Your task to perform on an android device: create a new album in the google photos Image 0: 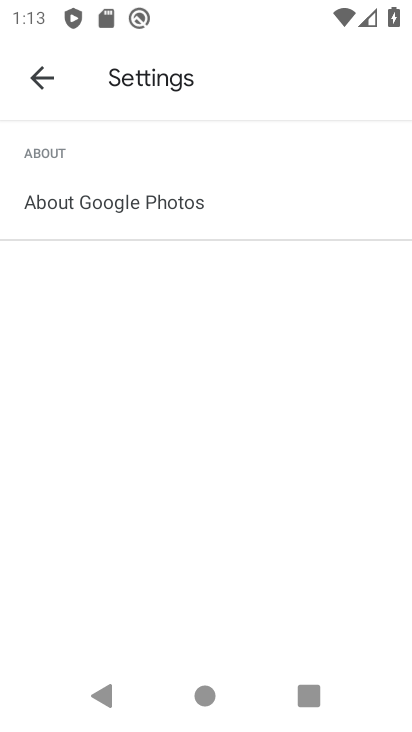
Step 0: press home button
Your task to perform on an android device: create a new album in the google photos Image 1: 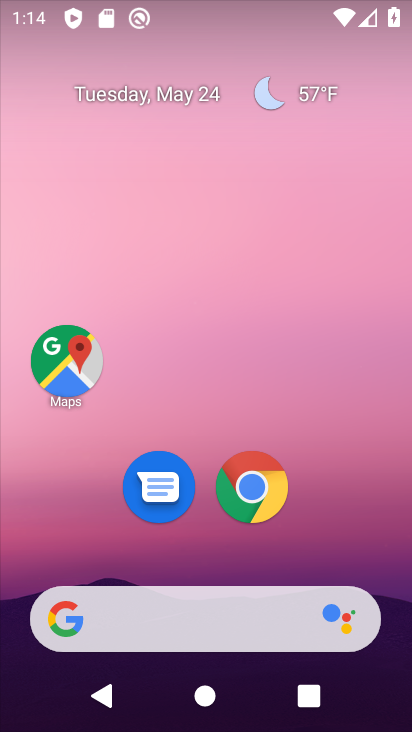
Step 1: drag from (215, 729) to (196, 92)
Your task to perform on an android device: create a new album in the google photos Image 2: 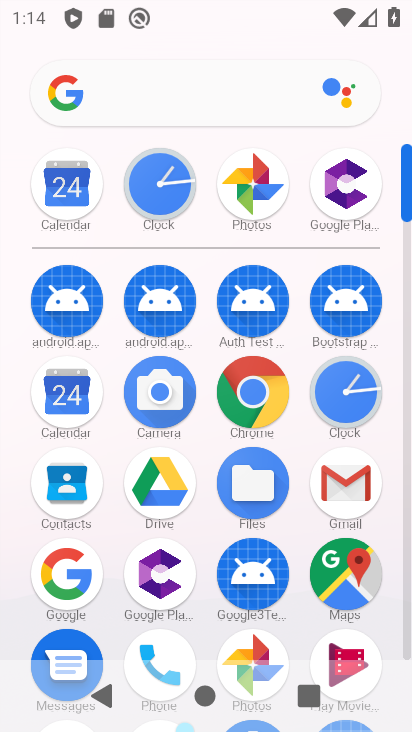
Step 2: click (256, 648)
Your task to perform on an android device: create a new album in the google photos Image 3: 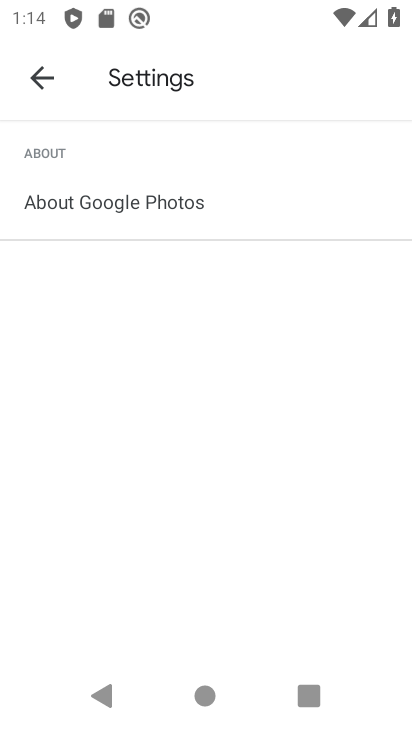
Step 3: click (48, 76)
Your task to perform on an android device: create a new album in the google photos Image 4: 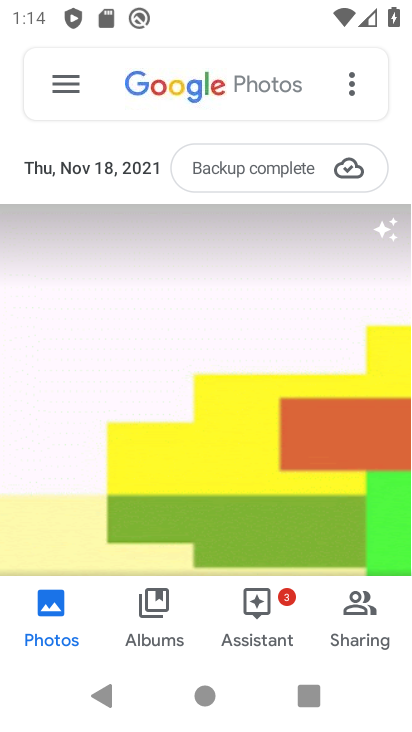
Step 4: click (289, 438)
Your task to perform on an android device: create a new album in the google photos Image 5: 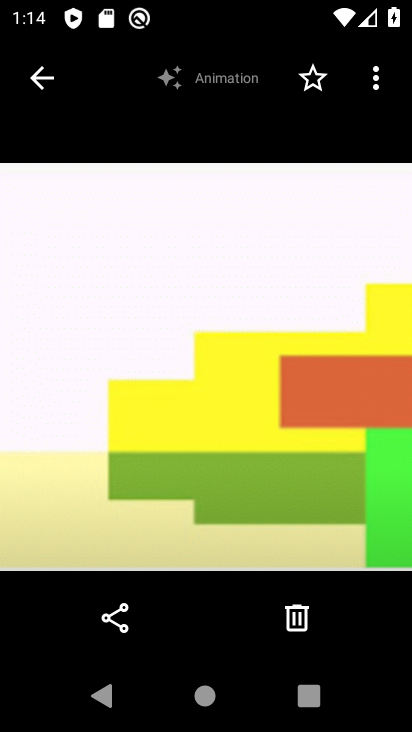
Step 5: task complete